Your task to perform on an android device: open app "Google News" Image 0: 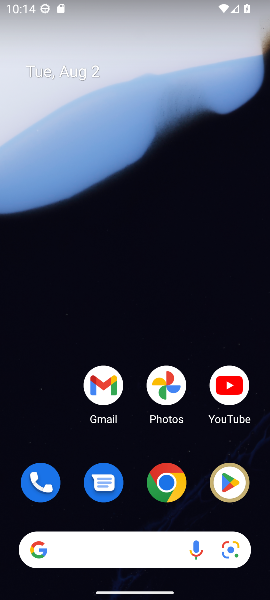
Step 0: drag from (172, 521) to (197, 119)
Your task to perform on an android device: open app "Google News" Image 1: 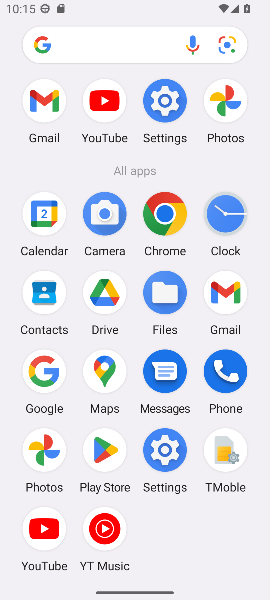
Step 1: click (41, 460)
Your task to perform on an android device: open app "Google News" Image 2: 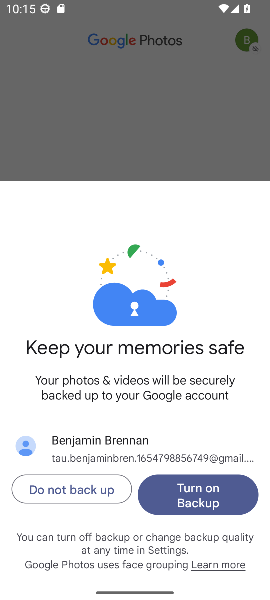
Step 2: press home button
Your task to perform on an android device: open app "Google News" Image 3: 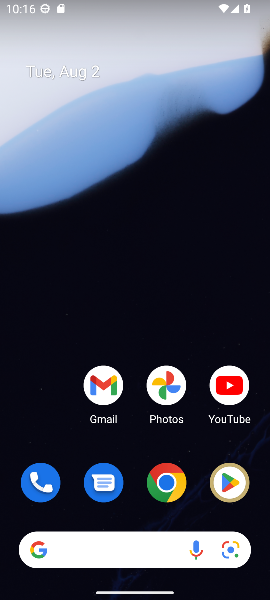
Step 3: drag from (172, 193) to (212, 26)
Your task to perform on an android device: open app "Google News" Image 4: 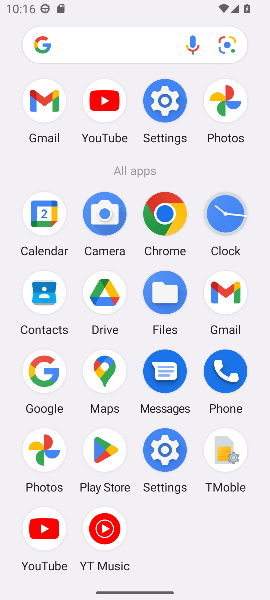
Step 4: click (100, 446)
Your task to perform on an android device: open app "Google News" Image 5: 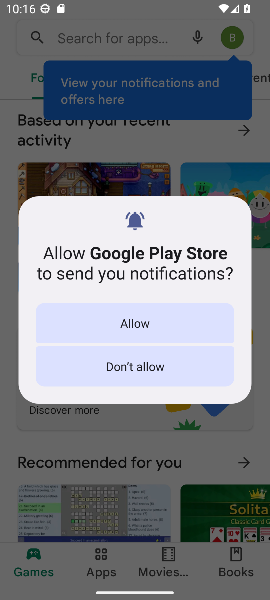
Step 5: click (137, 314)
Your task to perform on an android device: open app "Google News" Image 6: 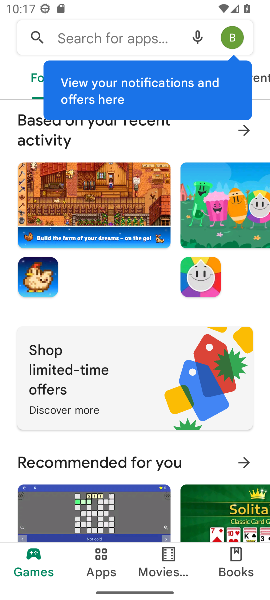
Step 6: click (97, 39)
Your task to perform on an android device: open app "Google News" Image 7: 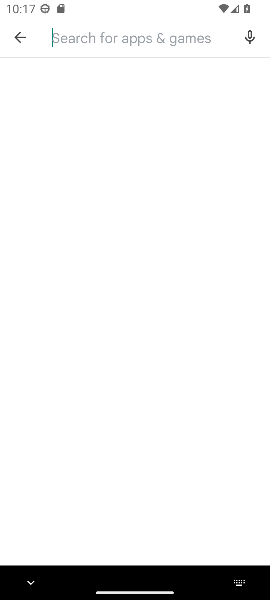
Step 7: type "Google News"
Your task to perform on an android device: open app "Google News" Image 8: 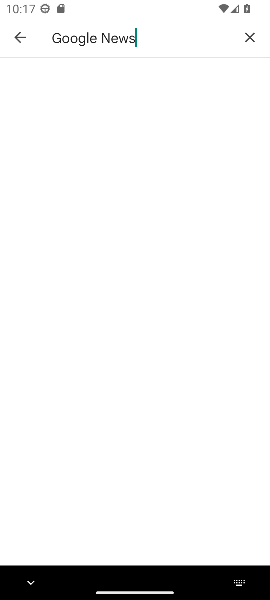
Step 8: type ""
Your task to perform on an android device: open app "Google News" Image 9: 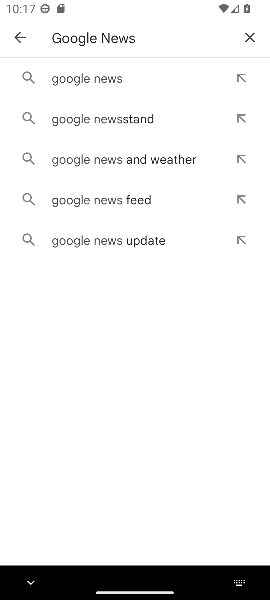
Step 9: click (145, 70)
Your task to perform on an android device: open app "Google News" Image 10: 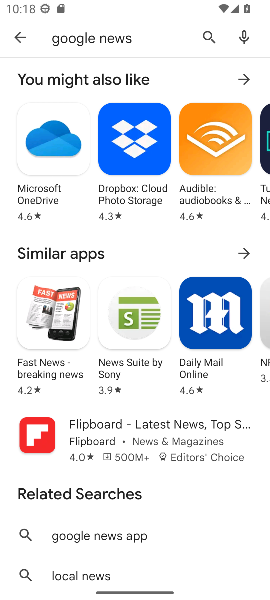
Step 10: task complete